Your task to perform on an android device: Open ESPN.com Image 0: 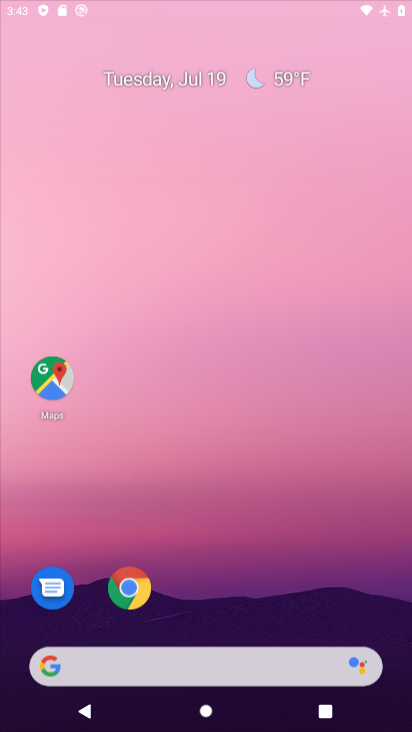
Step 0: press home button
Your task to perform on an android device: Open ESPN.com Image 1: 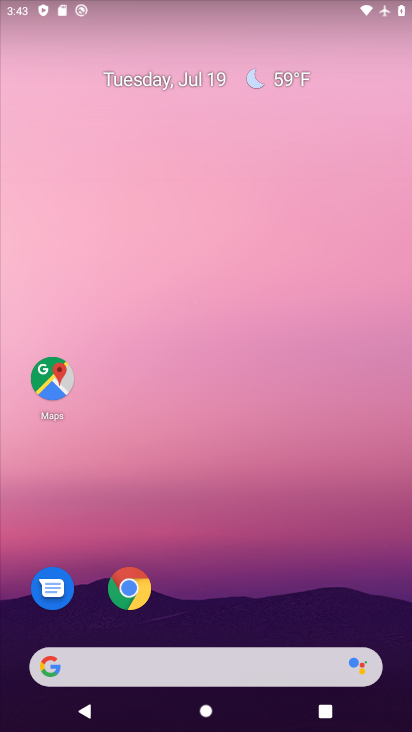
Step 1: click (44, 671)
Your task to perform on an android device: Open ESPN.com Image 2: 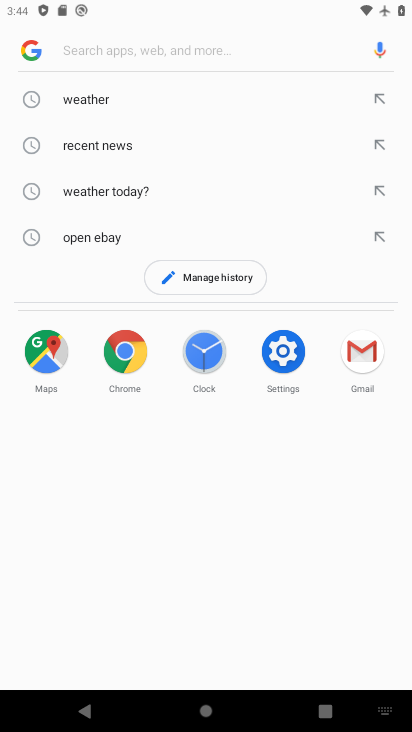
Step 2: type "ESPN.com"
Your task to perform on an android device: Open ESPN.com Image 3: 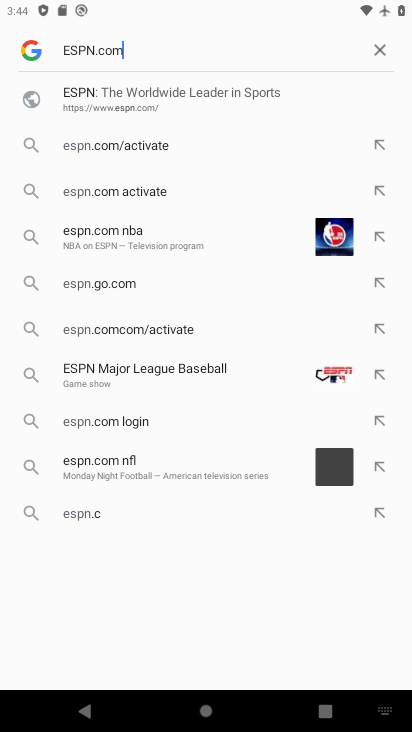
Step 3: press enter
Your task to perform on an android device: Open ESPN.com Image 4: 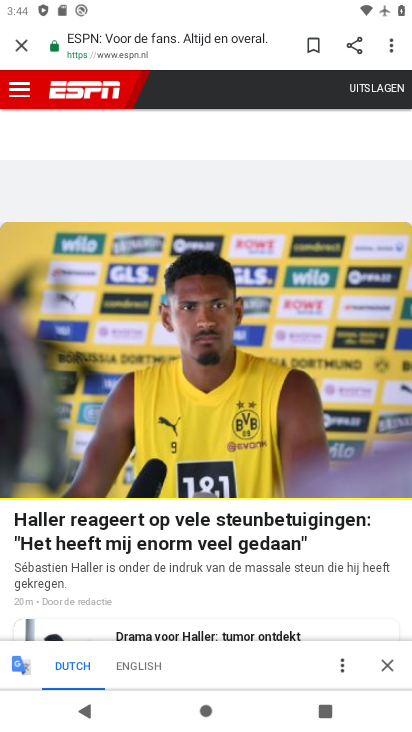
Step 4: task complete